Your task to perform on an android device: read, delete, or share a saved page in the chrome app Image 0: 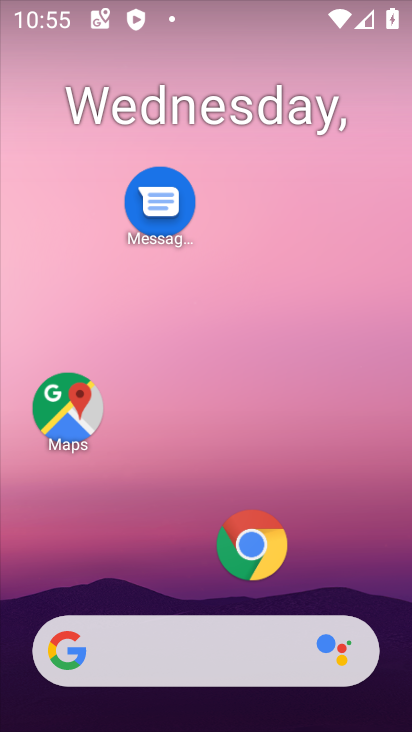
Step 0: click (239, 552)
Your task to perform on an android device: read, delete, or share a saved page in the chrome app Image 1: 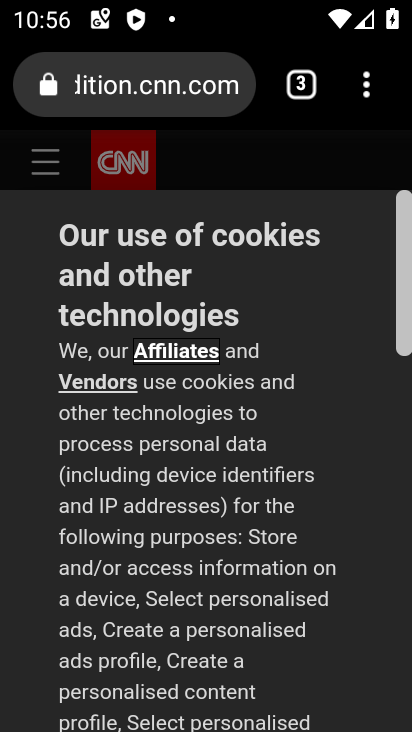
Step 1: drag from (369, 83) to (127, 527)
Your task to perform on an android device: read, delete, or share a saved page in the chrome app Image 2: 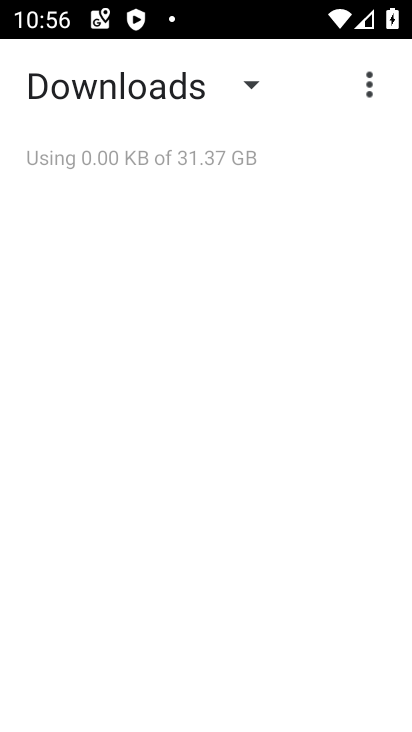
Step 2: click (249, 90)
Your task to perform on an android device: read, delete, or share a saved page in the chrome app Image 3: 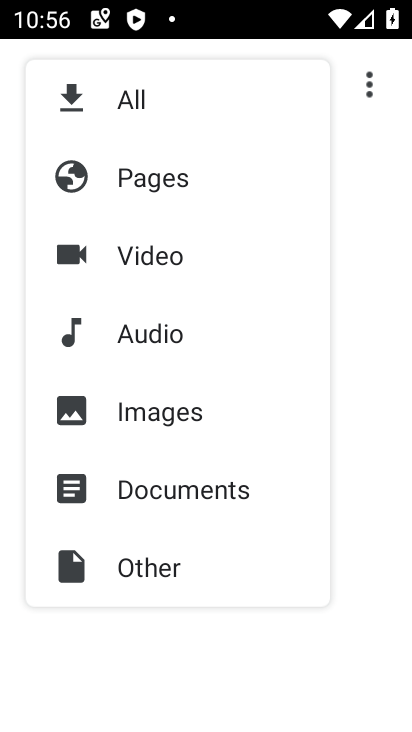
Step 3: click (169, 189)
Your task to perform on an android device: read, delete, or share a saved page in the chrome app Image 4: 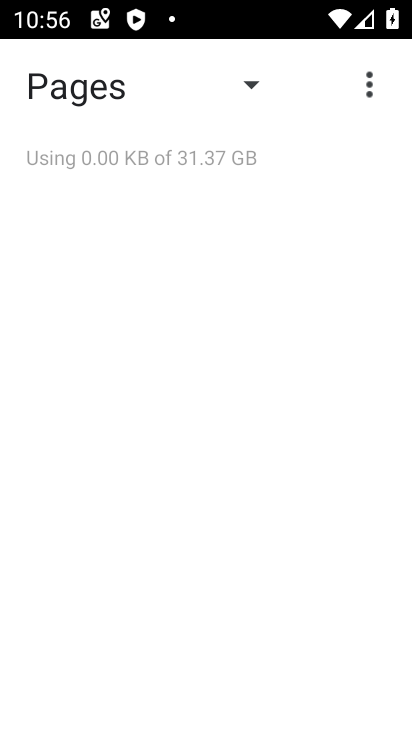
Step 4: task complete